Your task to perform on an android device: Open Amazon Image 0: 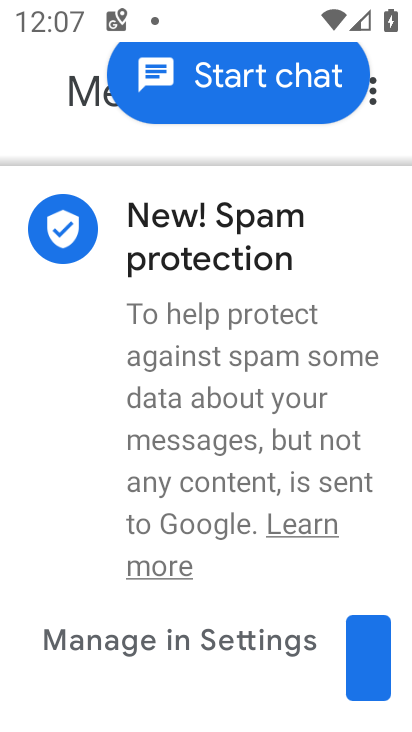
Step 0: press back button
Your task to perform on an android device: Open Amazon Image 1: 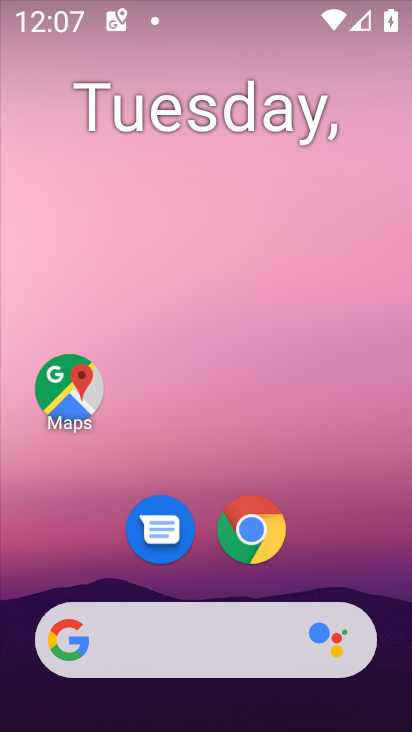
Step 1: click (252, 533)
Your task to perform on an android device: Open Amazon Image 2: 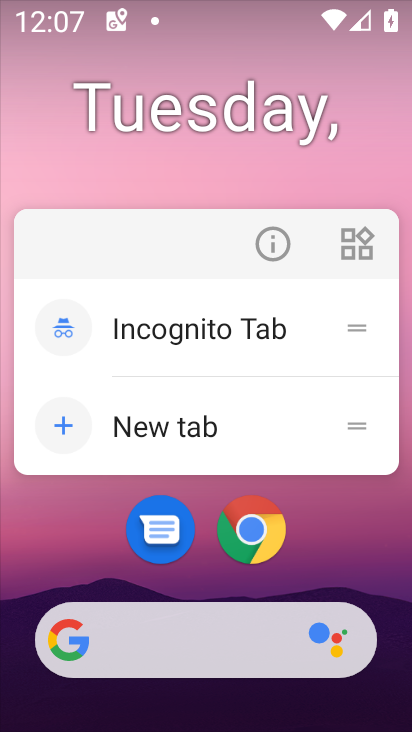
Step 2: click (253, 533)
Your task to perform on an android device: Open Amazon Image 3: 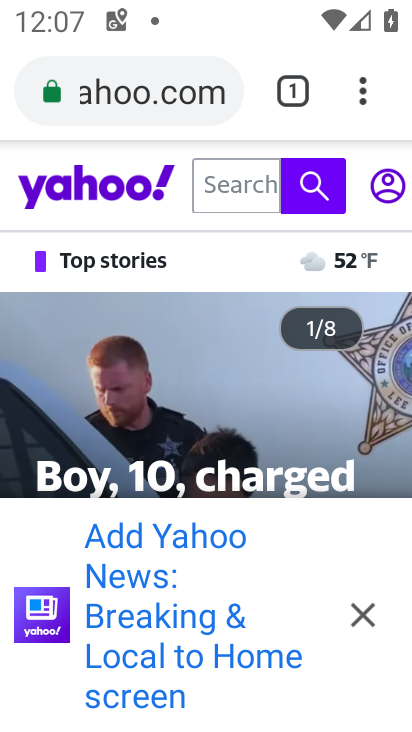
Step 3: click (285, 91)
Your task to perform on an android device: Open Amazon Image 4: 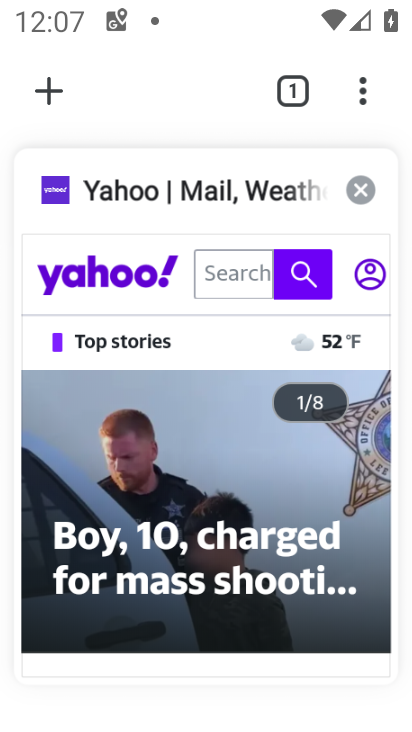
Step 4: click (52, 85)
Your task to perform on an android device: Open Amazon Image 5: 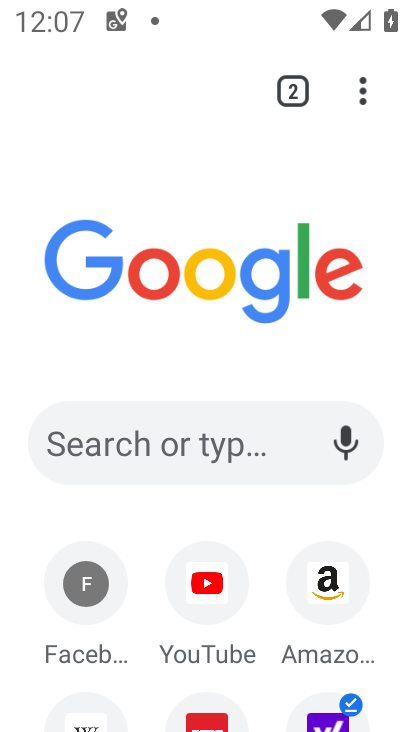
Step 5: click (312, 590)
Your task to perform on an android device: Open Amazon Image 6: 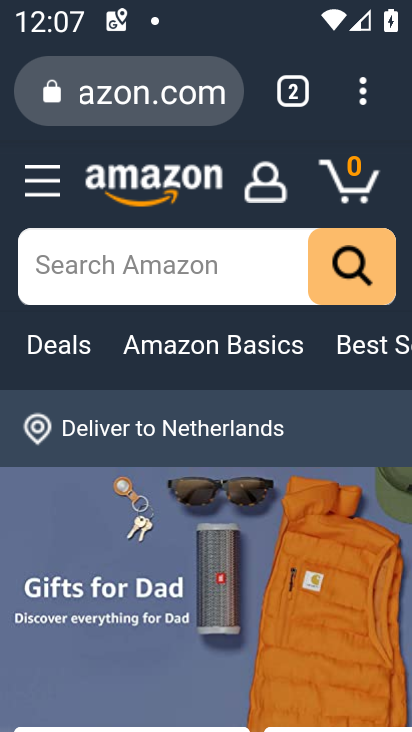
Step 6: task complete